Your task to perform on an android device: Go to Yahoo.com Image 0: 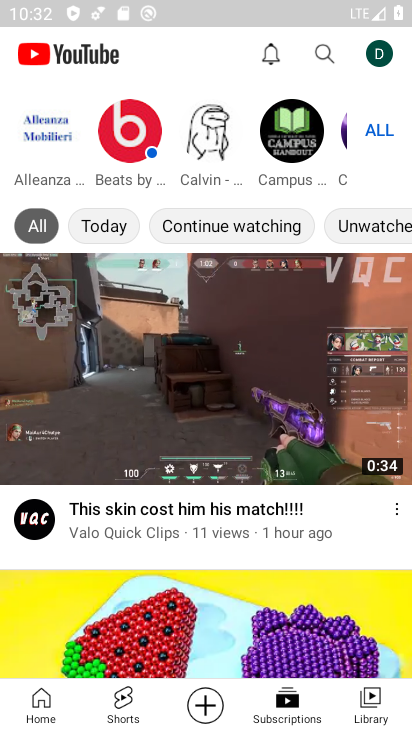
Step 0: press home button
Your task to perform on an android device: Go to Yahoo.com Image 1: 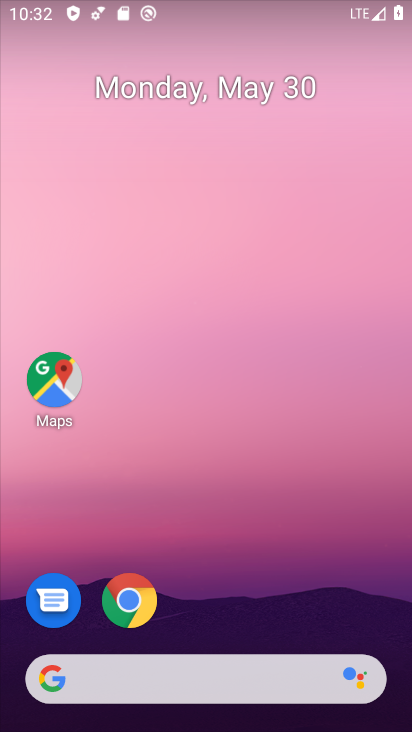
Step 1: click (131, 604)
Your task to perform on an android device: Go to Yahoo.com Image 2: 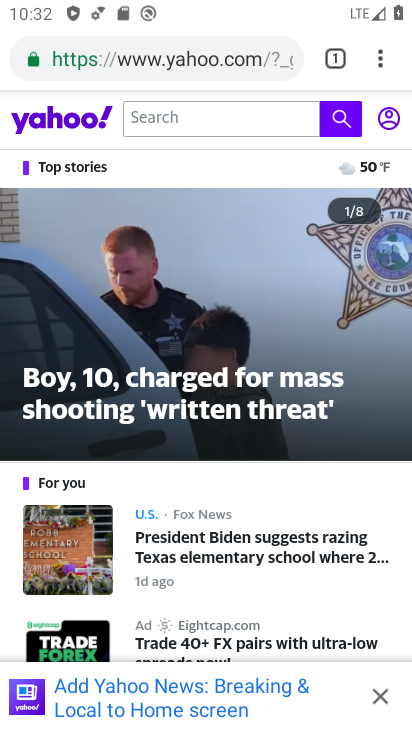
Step 2: click (203, 46)
Your task to perform on an android device: Go to Yahoo.com Image 3: 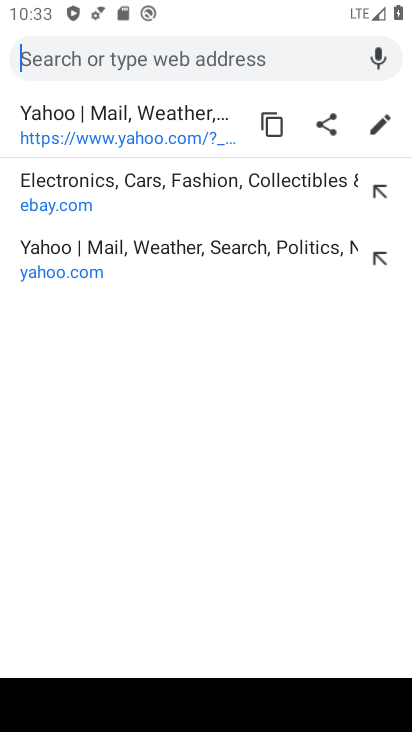
Step 3: type "Yahoo.com"
Your task to perform on an android device: Go to Yahoo.com Image 4: 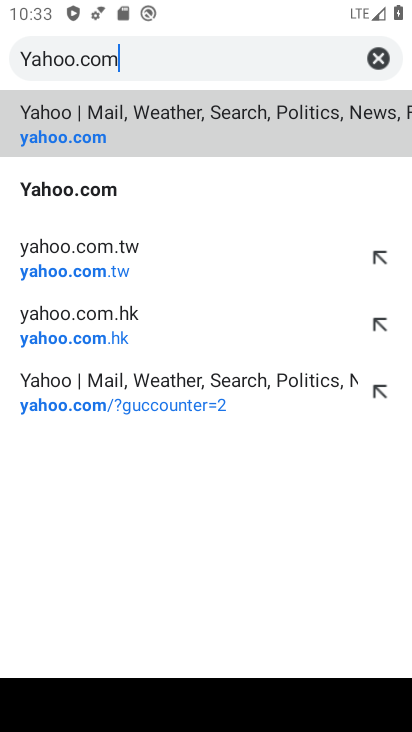
Step 4: click (65, 131)
Your task to perform on an android device: Go to Yahoo.com Image 5: 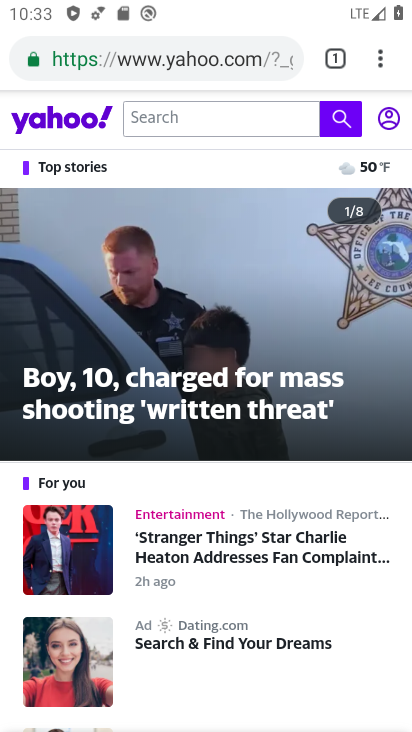
Step 5: task complete